Your task to perform on an android device: set default search engine in the chrome app Image 0: 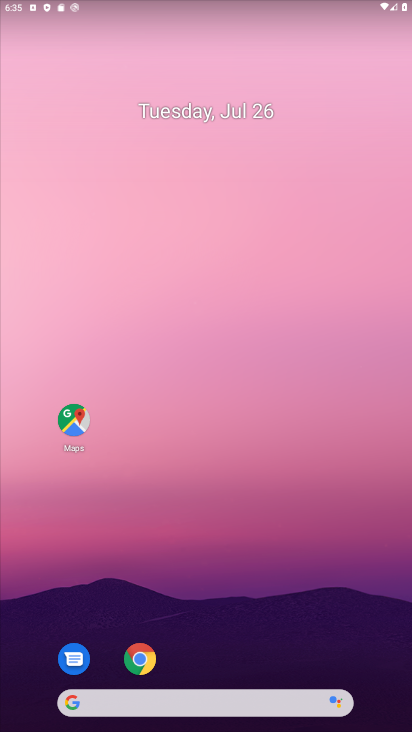
Step 0: click (138, 662)
Your task to perform on an android device: set default search engine in the chrome app Image 1: 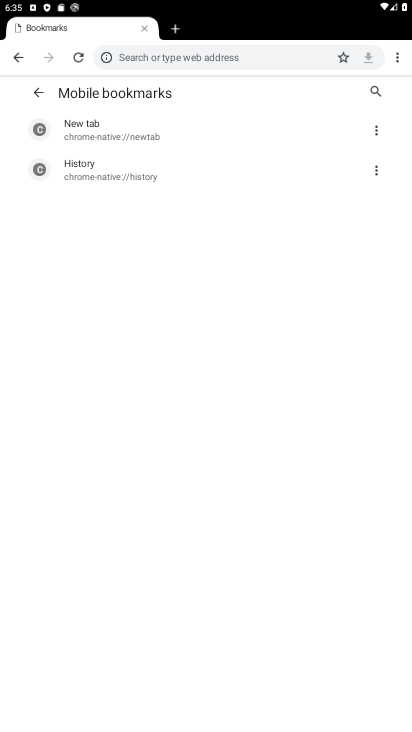
Step 1: click (399, 58)
Your task to perform on an android device: set default search engine in the chrome app Image 2: 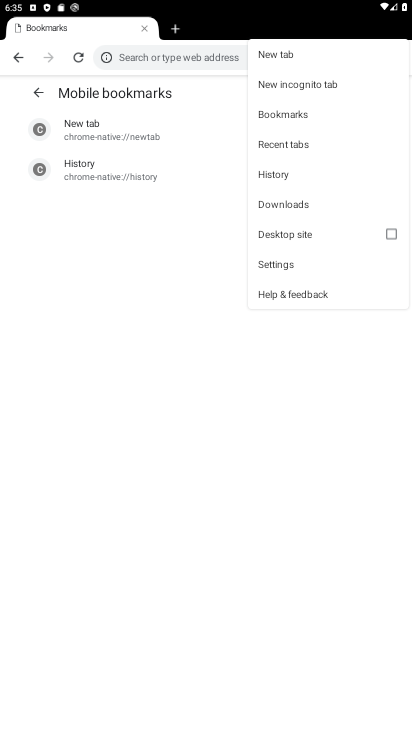
Step 2: click (286, 255)
Your task to perform on an android device: set default search engine in the chrome app Image 3: 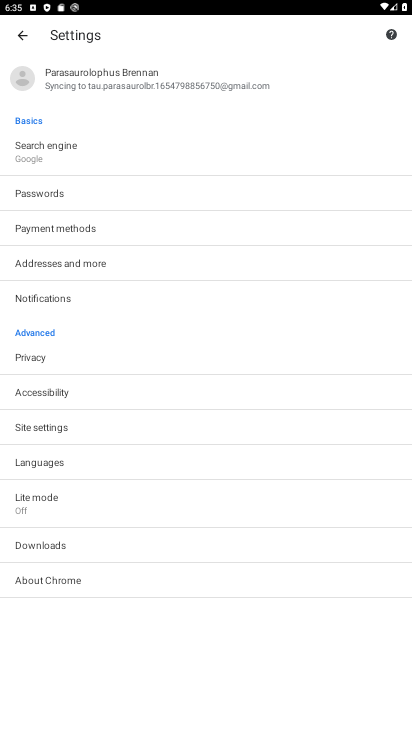
Step 3: task complete